Your task to perform on an android device: turn off picture-in-picture Image 0: 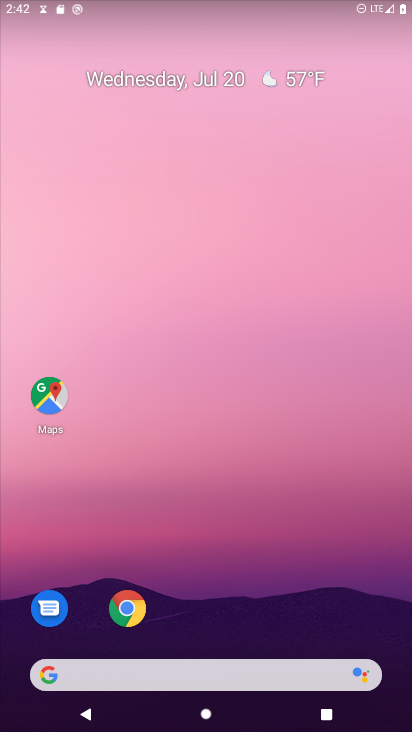
Step 0: drag from (241, 711) to (239, 278)
Your task to perform on an android device: turn off picture-in-picture Image 1: 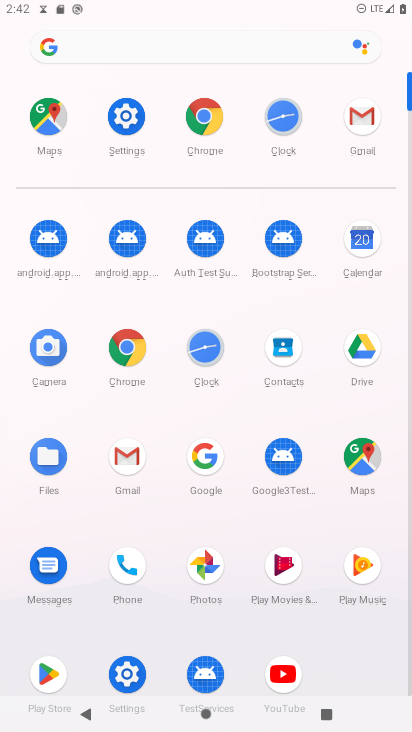
Step 1: click (124, 116)
Your task to perform on an android device: turn off picture-in-picture Image 2: 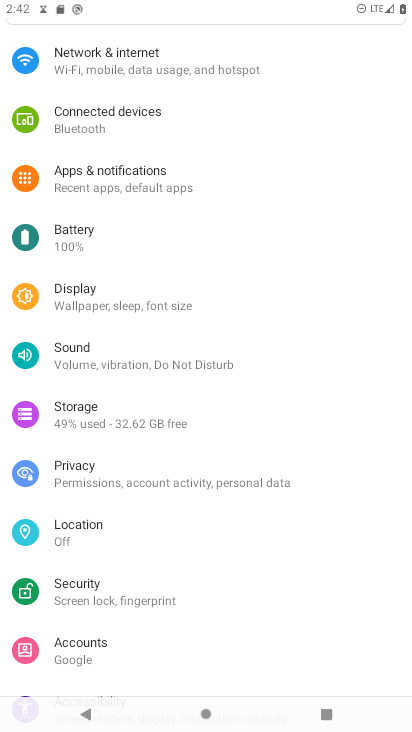
Step 2: click (120, 177)
Your task to perform on an android device: turn off picture-in-picture Image 3: 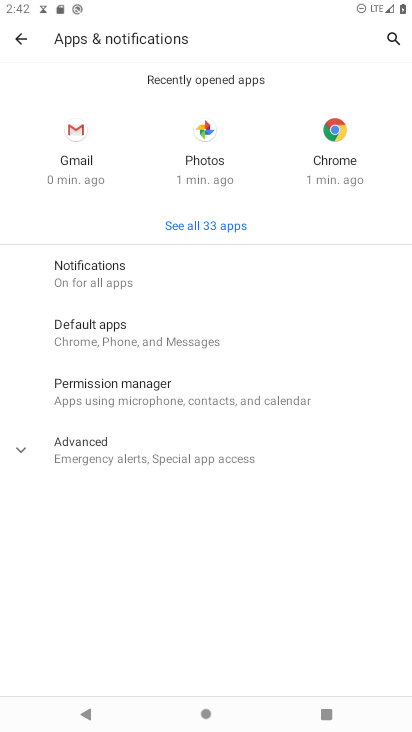
Step 3: click (93, 449)
Your task to perform on an android device: turn off picture-in-picture Image 4: 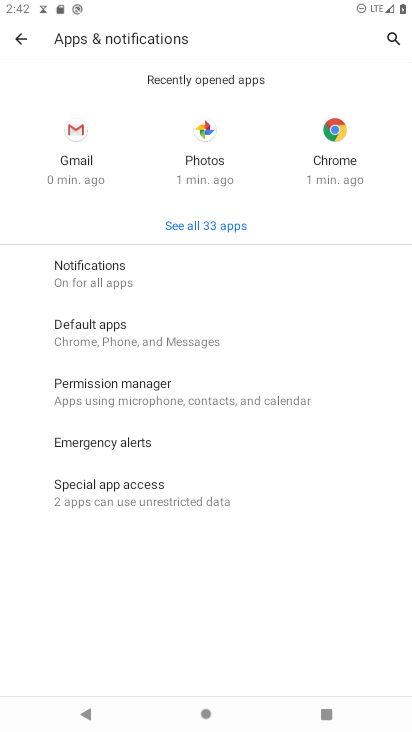
Step 4: click (107, 491)
Your task to perform on an android device: turn off picture-in-picture Image 5: 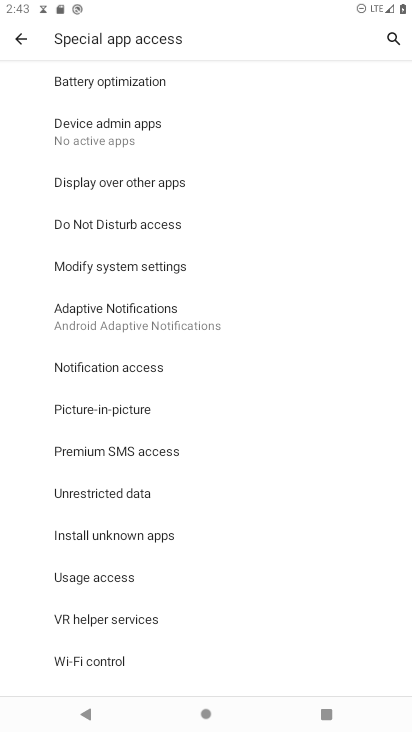
Step 5: click (121, 408)
Your task to perform on an android device: turn off picture-in-picture Image 6: 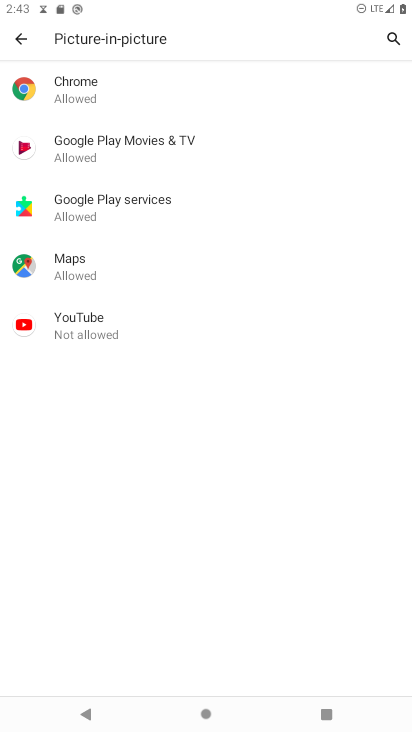
Step 6: click (88, 318)
Your task to perform on an android device: turn off picture-in-picture Image 7: 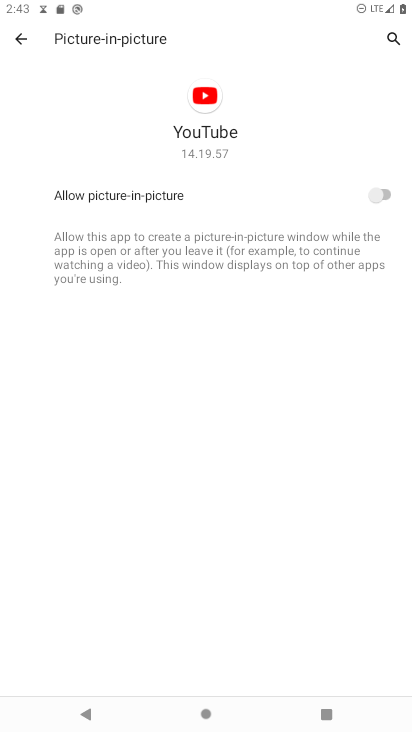
Step 7: task complete